Your task to perform on an android device: Open calendar and show me the second week of next month Image 0: 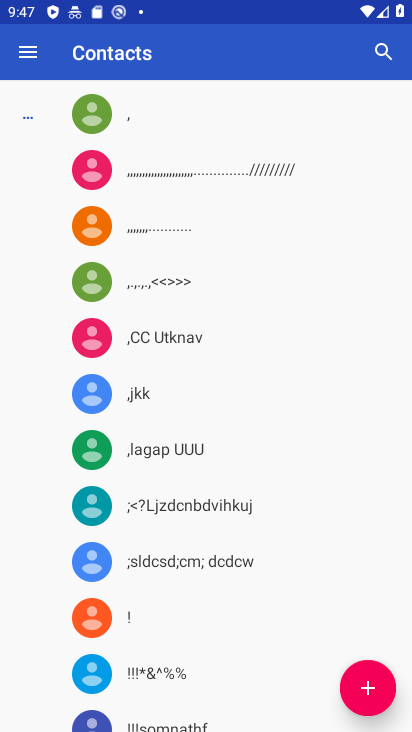
Step 0: press home button
Your task to perform on an android device: Open calendar and show me the second week of next month Image 1: 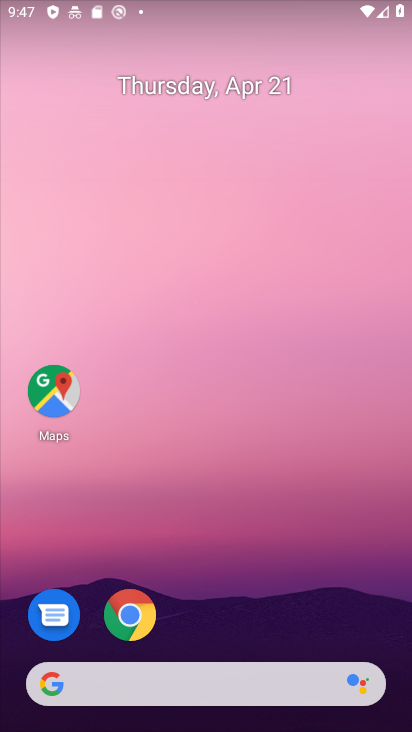
Step 1: drag from (209, 725) to (217, 128)
Your task to perform on an android device: Open calendar and show me the second week of next month Image 2: 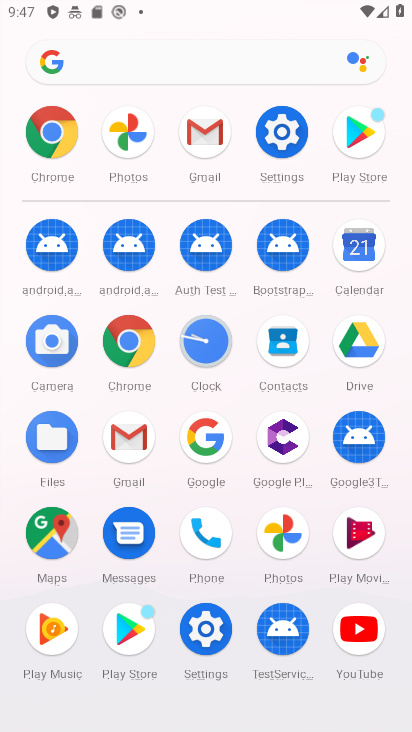
Step 2: click (349, 247)
Your task to perform on an android device: Open calendar and show me the second week of next month Image 3: 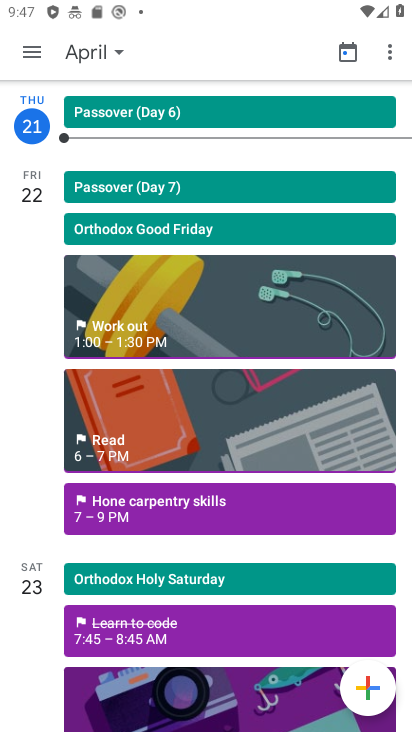
Step 3: click (93, 51)
Your task to perform on an android device: Open calendar and show me the second week of next month Image 4: 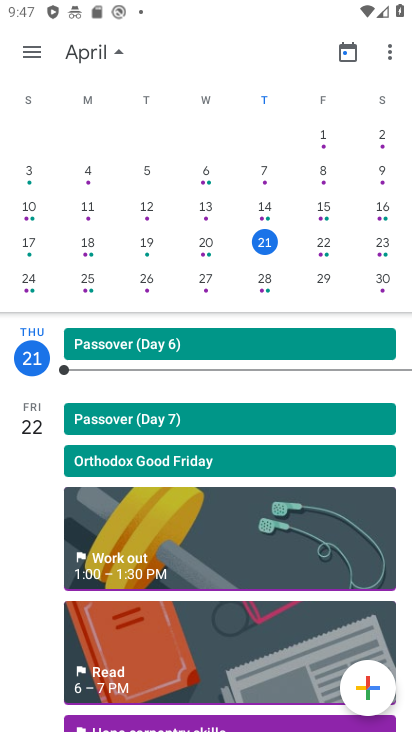
Step 4: drag from (355, 240) to (8, 238)
Your task to perform on an android device: Open calendar and show me the second week of next month Image 5: 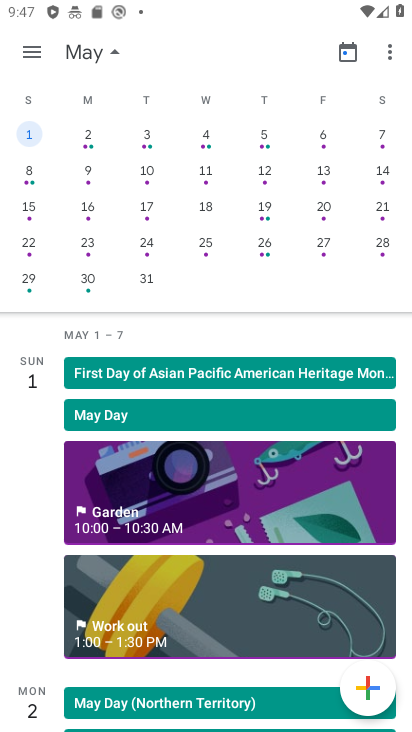
Step 5: click (86, 167)
Your task to perform on an android device: Open calendar and show me the second week of next month Image 6: 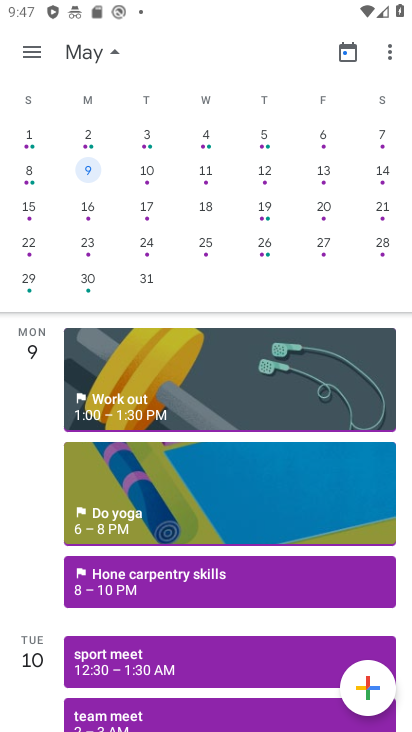
Step 6: task complete